Your task to perform on an android device: toggle priority inbox in the gmail app Image 0: 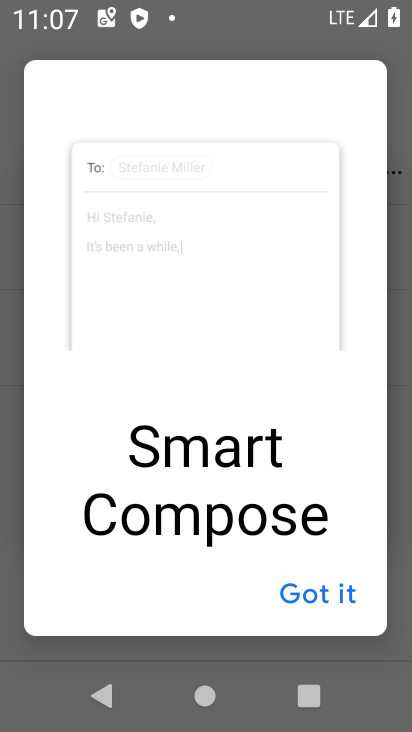
Step 0: press home button
Your task to perform on an android device: toggle priority inbox in the gmail app Image 1: 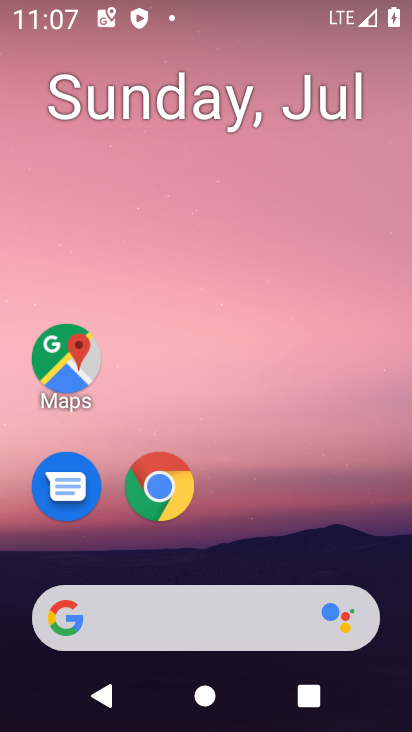
Step 1: drag from (381, 576) to (397, 306)
Your task to perform on an android device: toggle priority inbox in the gmail app Image 2: 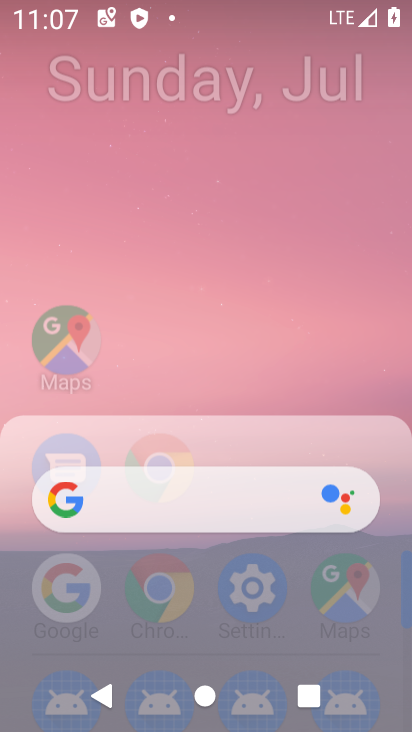
Step 2: drag from (339, 270) to (327, 65)
Your task to perform on an android device: toggle priority inbox in the gmail app Image 3: 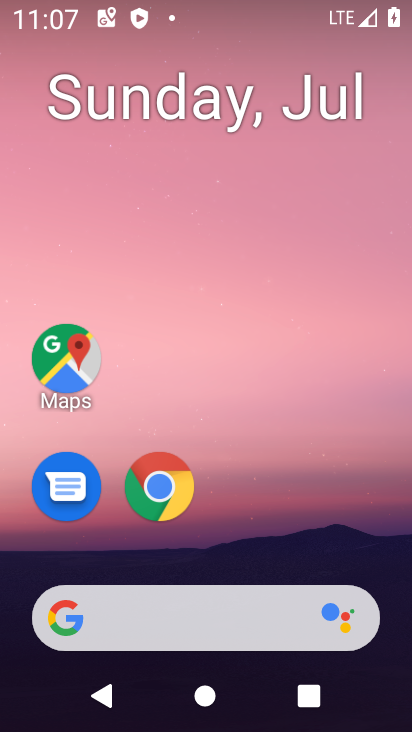
Step 3: drag from (345, 285) to (355, 39)
Your task to perform on an android device: toggle priority inbox in the gmail app Image 4: 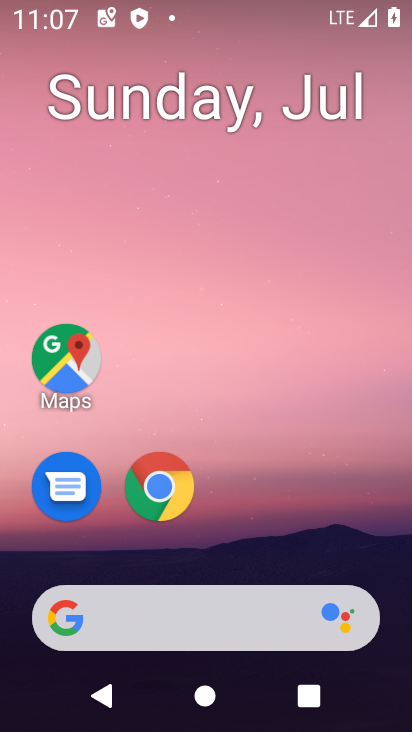
Step 4: drag from (383, 551) to (409, 478)
Your task to perform on an android device: toggle priority inbox in the gmail app Image 5: 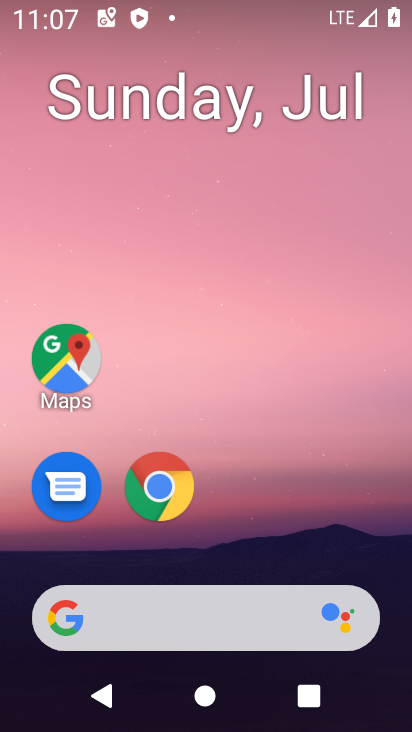
Step 5: click (360, 485)
Your task to perform on an android device: toggle priority inbox in the gmail app Image 6: 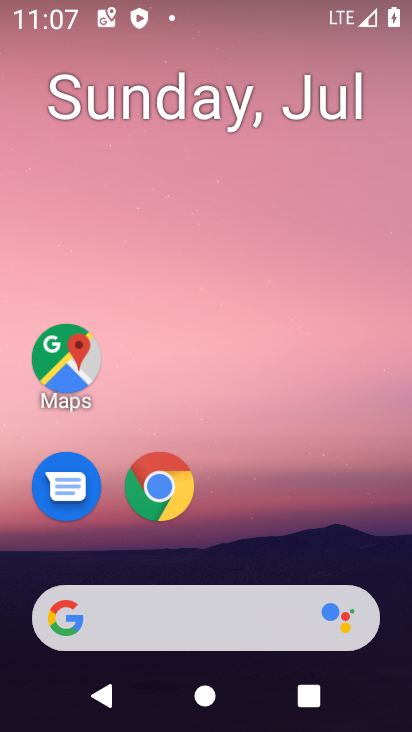
Step 6: drag from (383, 552) to (377, 69)
Your task to perform on an android device: toggle priority inbox in the gmail app Image 7: 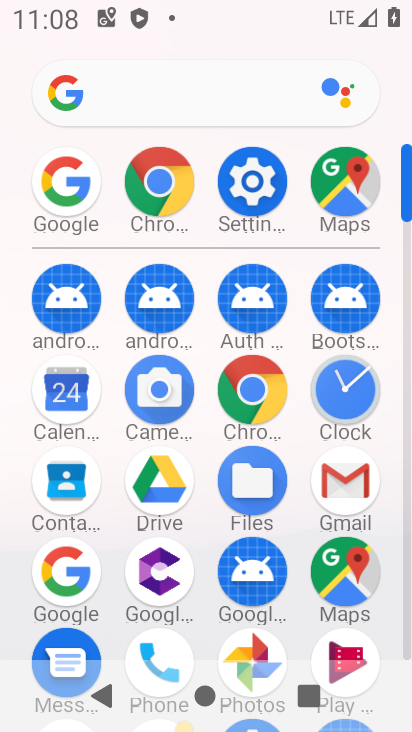
Step 7: click (353, 475)
Your task to perform on an android device: toggle priority inbox in the gmail app Image 8: 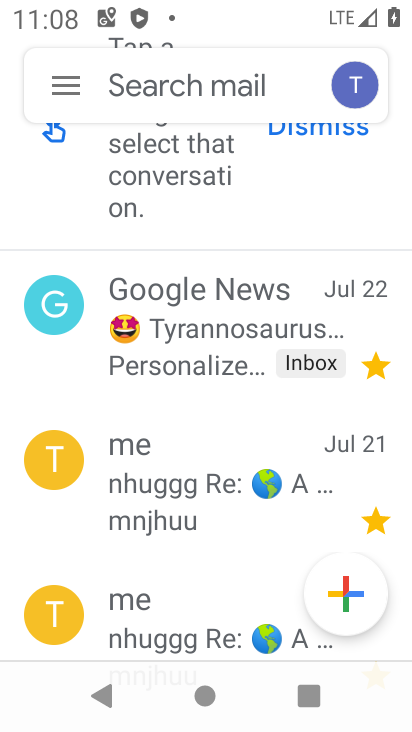
Step 8: click (66, 76)
Your task to perform on an android device: toggle priority inbox in the gmail app Image 9: 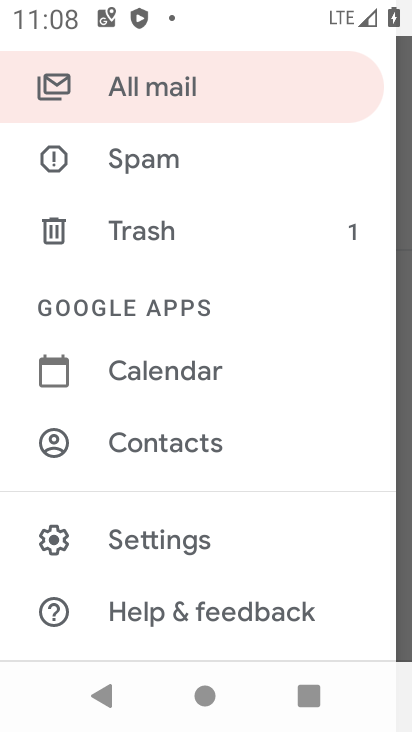
Step 9: click (215, 543)
Your task to perform on an android device: toggle priority inbox in the gmail app Image 10: 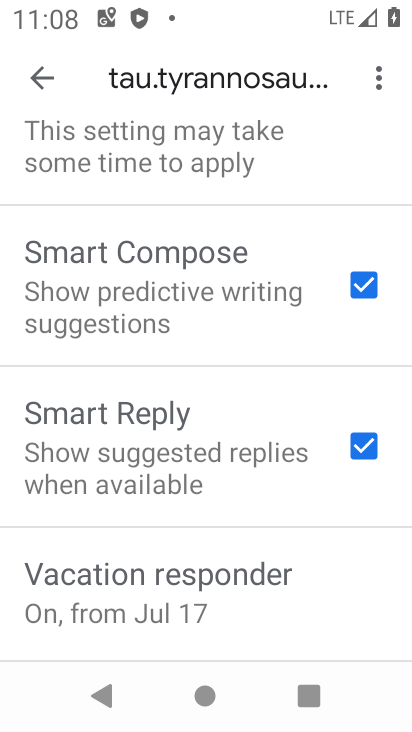
Step 10: drag from (280, 317) to (286, 388)
Your task to perform on an android device: toggle priority inbox in the gmail app Image 11: 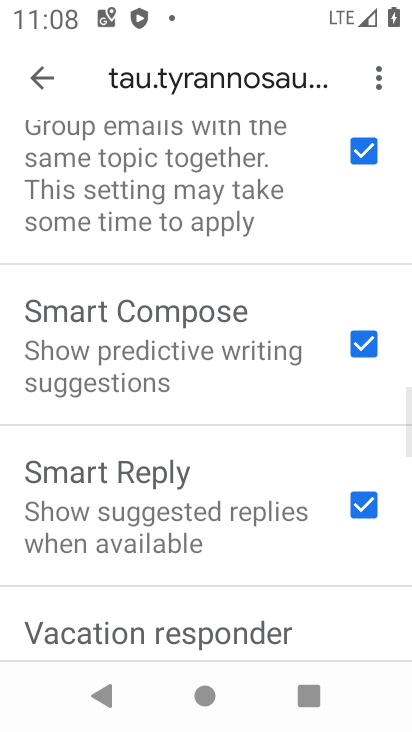
Step 11: drag from (280, 260) to (280, 348)
Your task to perform on an android device: toggle priority inbox in the gmail app Image 12: 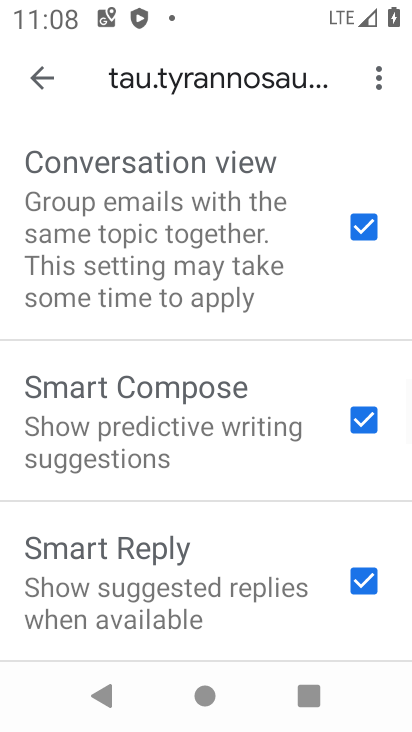
Step 12: drag from (299, 226) to (299, 353)
Your task to perform on an android device: toggle priority inbox in the gmail app Image 13: 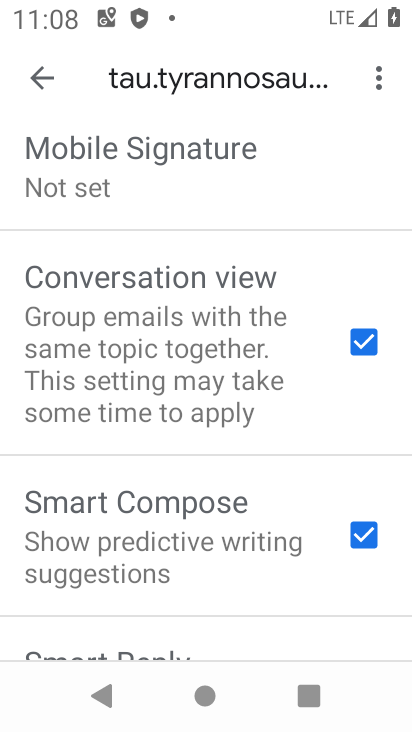
Step 13: drag from (299, 201) to (298, 302)
Your task to perform on an android device: toggle priority inbox in the gmail app Image 14: 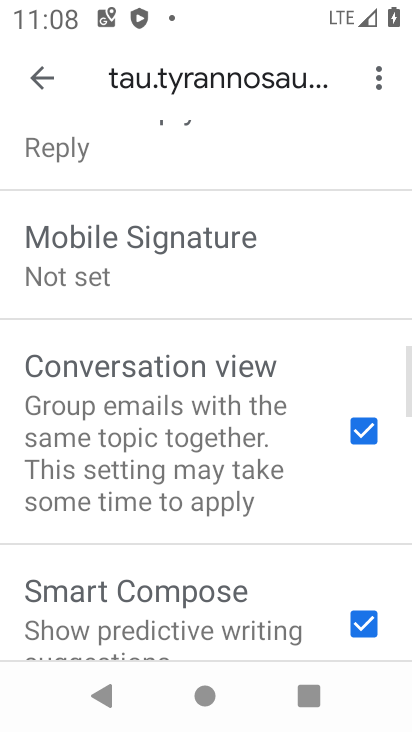
Step 14: drag from (296, 181) to (300, 298)
Your task to perform on an android device: toggle priority inbox in the gmail app Image 15: 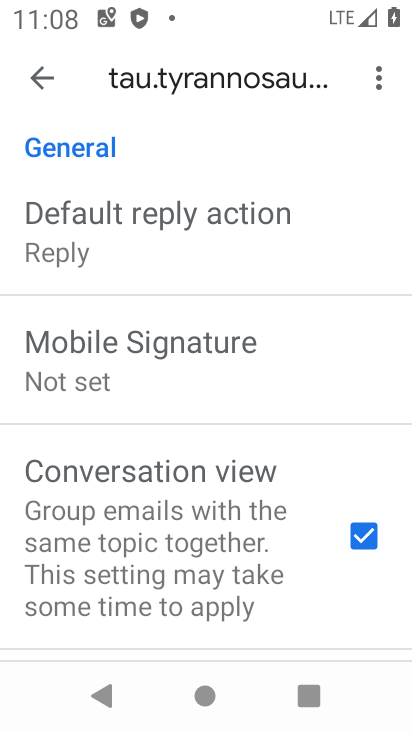
Step 15: drag from (295, 161) to (290, 289)
Your task to perform on an android device: toggle priority inbox in the gmail app Image 16: 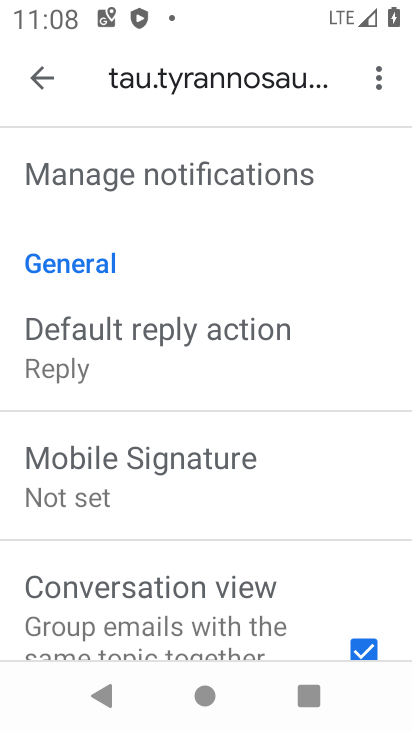
Step 16: drag from (288, 147) to (295, 306)
Your task to perform on an android device: toggle priority inbox in the gmail app Image 17: 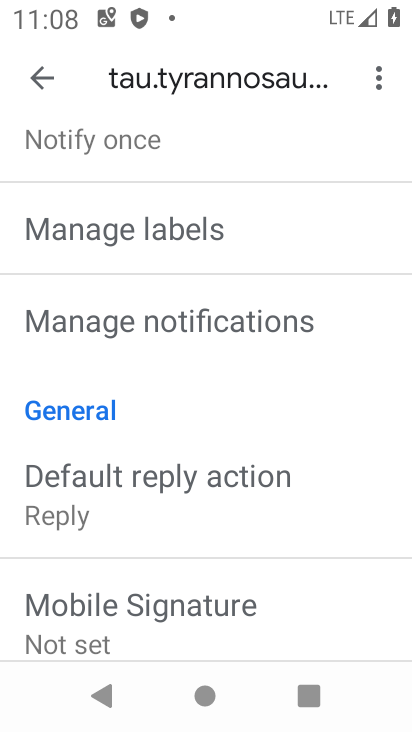
Step 17: drag from (295, 140) to (299, 332)
Your task to perform on an android device: toggle priority inbox in the gmail app Image 18: 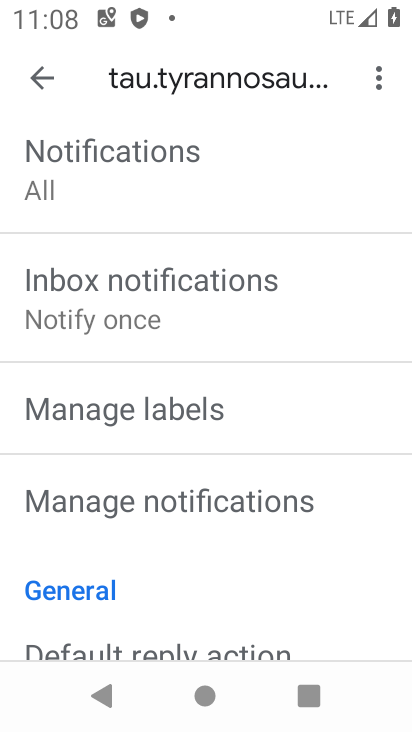
Step 18: drag from (292, 248) to (304, 322)
Your task to perform on an android device: toggle priority inbox in the gmail app Image 19: 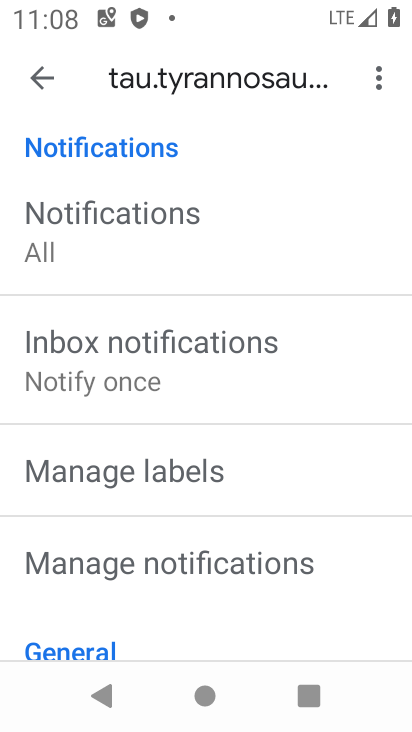
Step 19: drag from (298, 153) to (306, 330)
Your task to perform on an android device: toggle priority inbox in the gmail app Image 20: 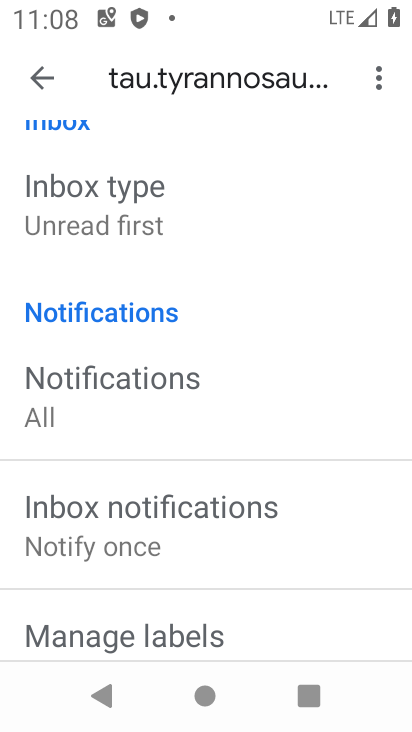
Step 20: drag from (288, 137) to (286, 276)
Your task to perform on an android device: toggle priority inbox in the gmail app Image 21: 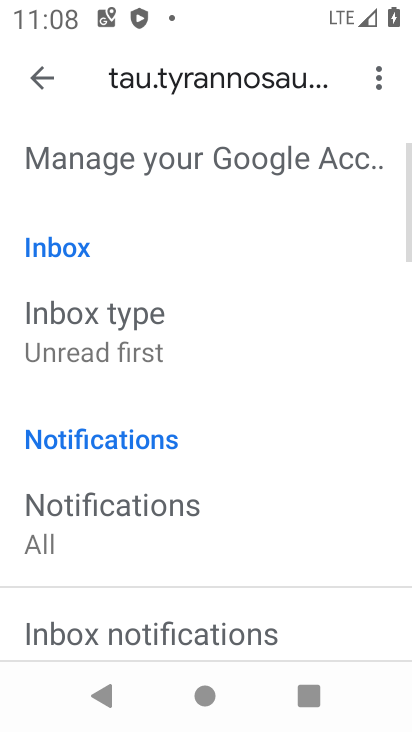
Step 21: click (236, 331)
Your task to perform on an android device: toggle priority inbox in the gmail app Image 22: 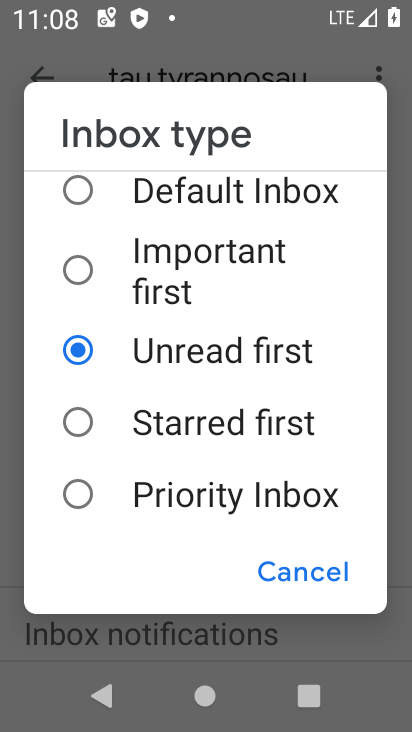
Step 22: click (75, 493)
Your task to perform on an android device: toggle priority inbox in the gmail app Image 23: 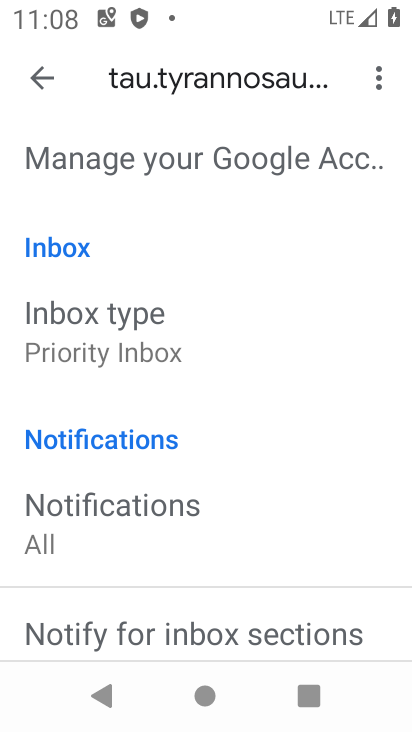
Step 23: task complete